Your task to perform on an android device: install app "Google Pay: Save, Pay, Manage" Image 0: 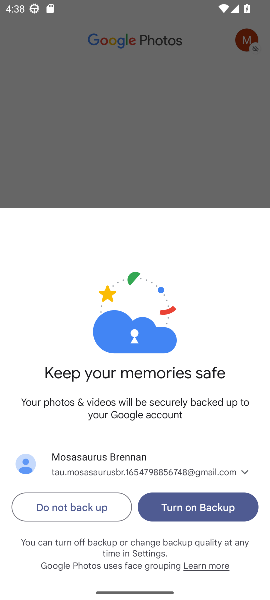
Step 0: press home button
Your task to perform on an android device: install app "Google Pay: Save, Pay, Manage" Image 1: 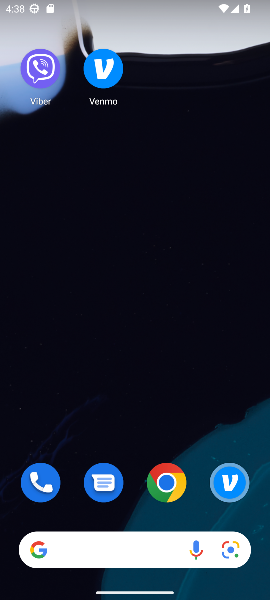
Step 1: press home button
Your task to perform on an android device: install app "Google Pay: Save, Pay, Manage" Image 2: 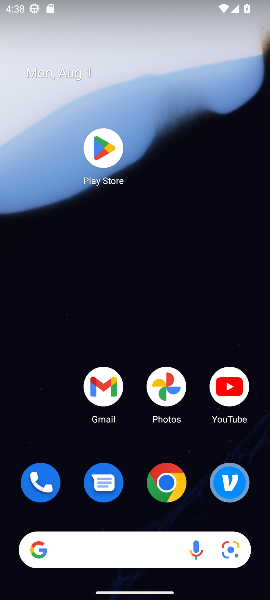
Step 2: click (101, 144)
Your task to perform on an android device: install app "Google Pay: Save, Pay, Manage" Image 3: 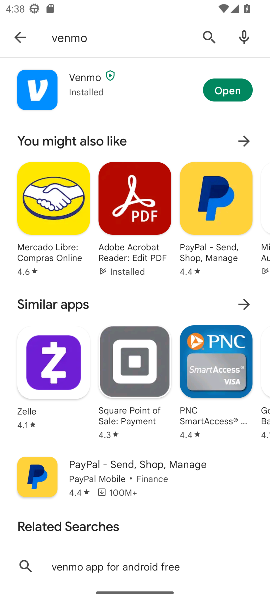
Step 3: click (205, 30)
Your task to perform on an android device: install app "Google Pay: Save, Pay, Manage" Image 4: 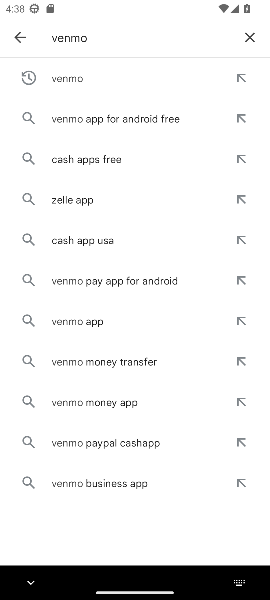
Step 4: click (247, 31)
Your task to perform on an android device: install app "Google Pay: Save, Pay, Manage" Image 5: 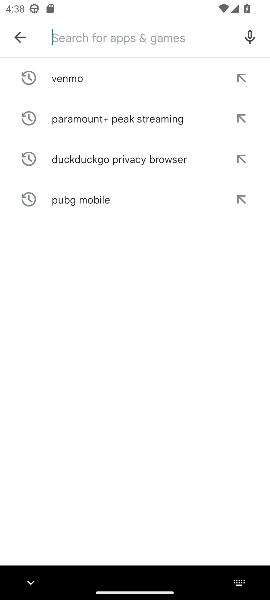
Step 5: type "Google Pay: Save, Pay, Manage"
Your task to perform on an android device: install app "Google Pay: Save, Pay, Manage" Image 6: 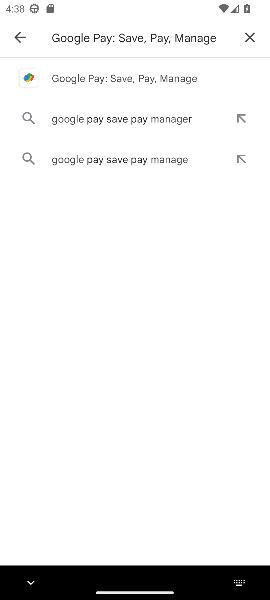
Step 6: click (174, 79)
Your task to perform on an android device: install app "Google Pay: Save, Pay, Manage" Image 7: 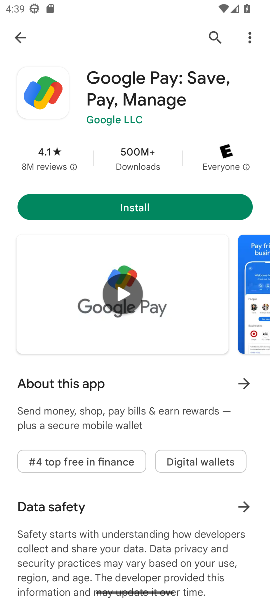
Step 7: click (127, 212)
Your task to perform on an android device: install app "Google Pay: Save, Pay, Manage" Image 8: 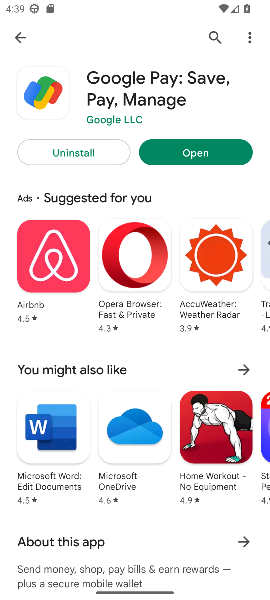
Step 8: task complete